Your task to perform on an android device: Turn off the flashlight Image 0: 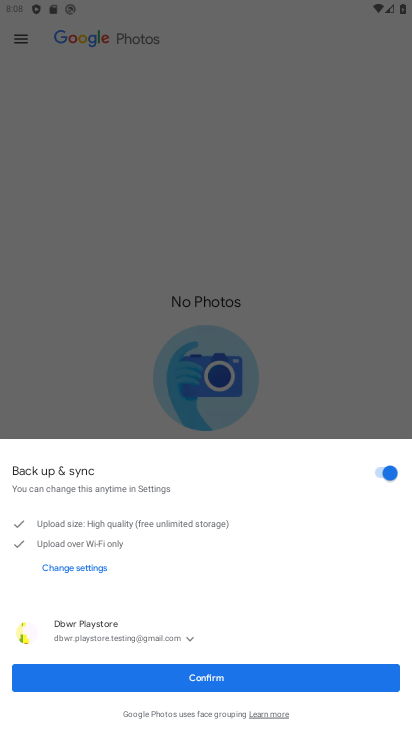
Step 0: press home button
Your task to perform on an android device: Turn off the flashlight Image 1: 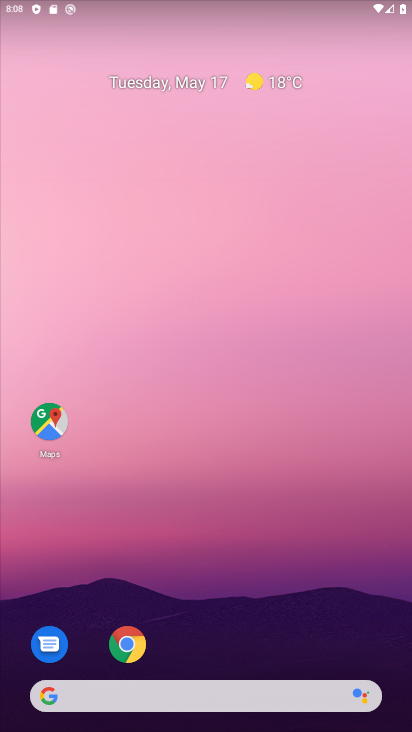
Step 1: task complete